Your task to perform on an android device: Go to Maps Image 0: 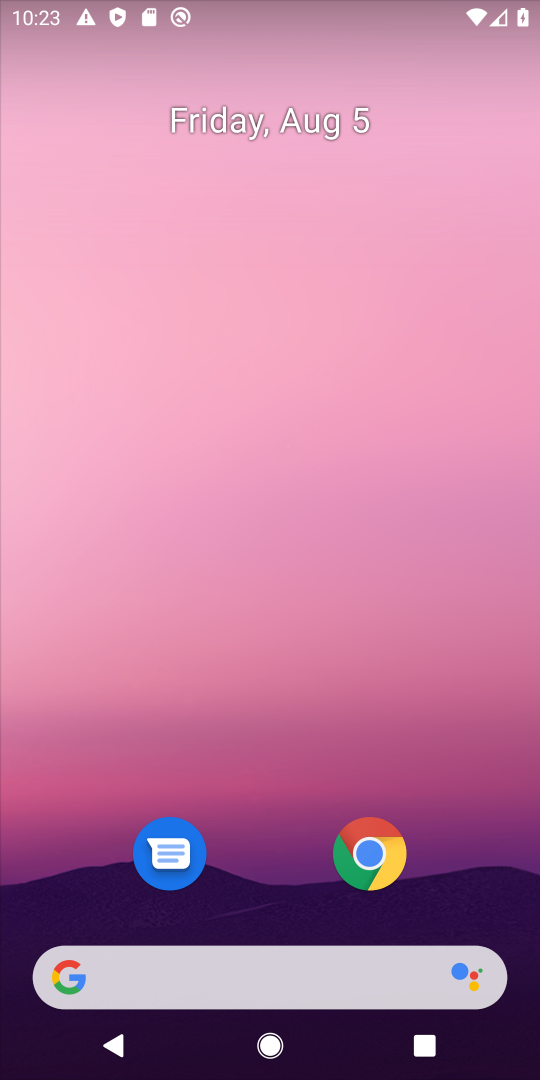
Step 0: drag from (271, 904) to (130, 434)
Your task to perform on an android device: Go to Maps Image 1: 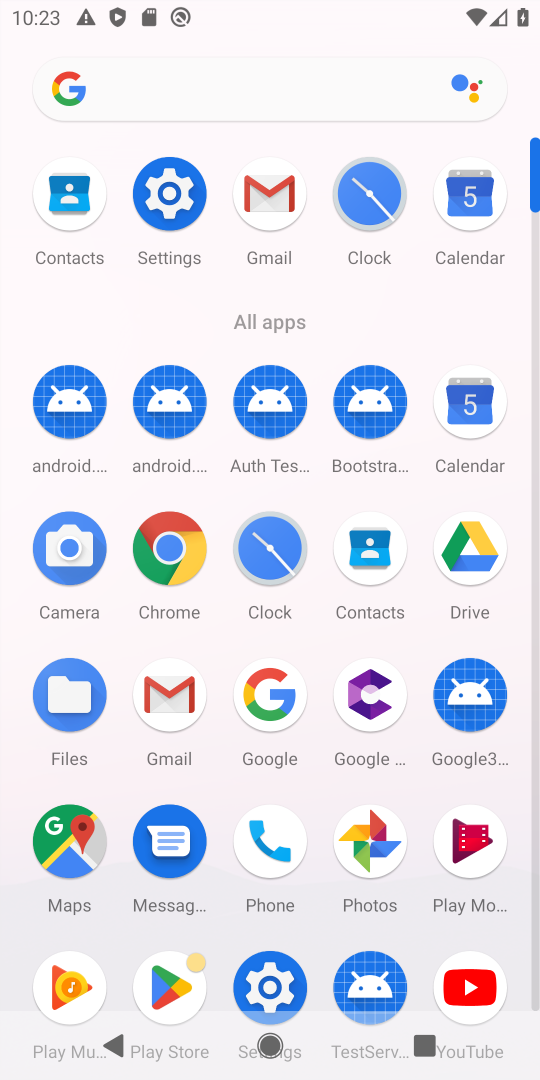
Step 1: click (68, 842)
Your task to perform on an android device: Go to Maps Image 2: 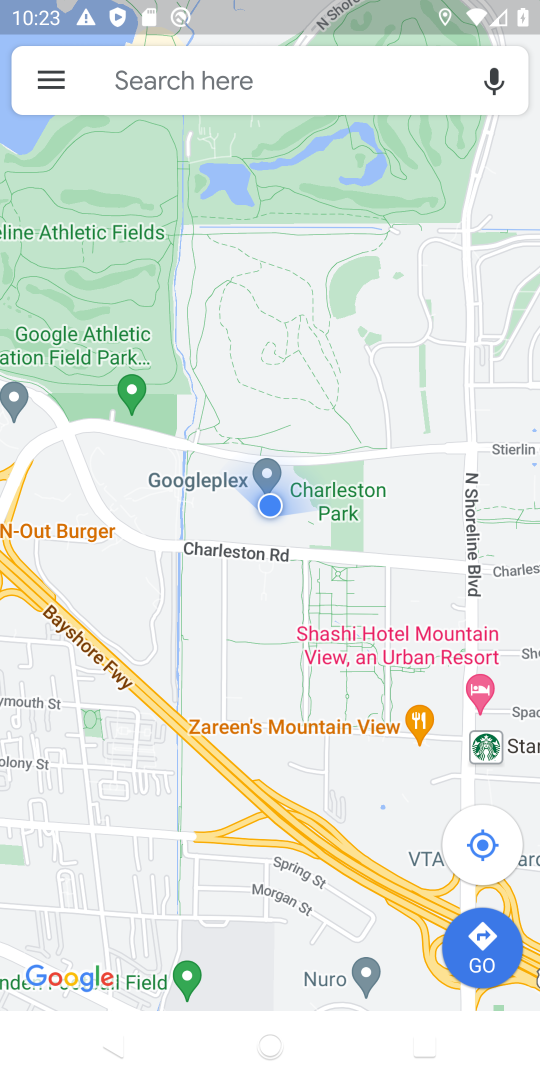
Step 2: task complete